Your task to perform on an android device: manage bookmarks in the chrome app Image 0: 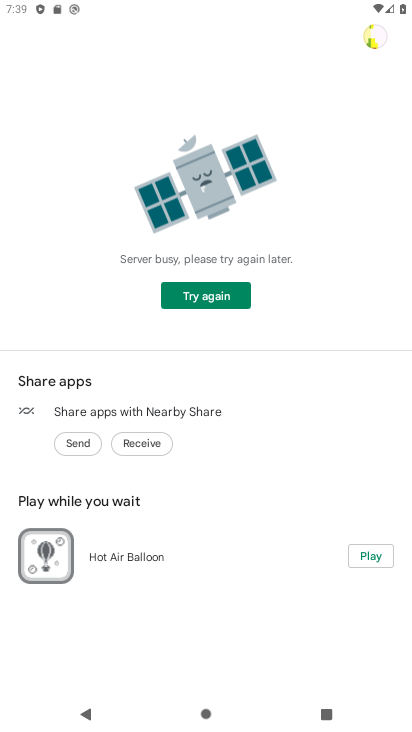
Step 0: press home button
Your task to perform on an android device: manage bookmarks in the chrome app Image 1: 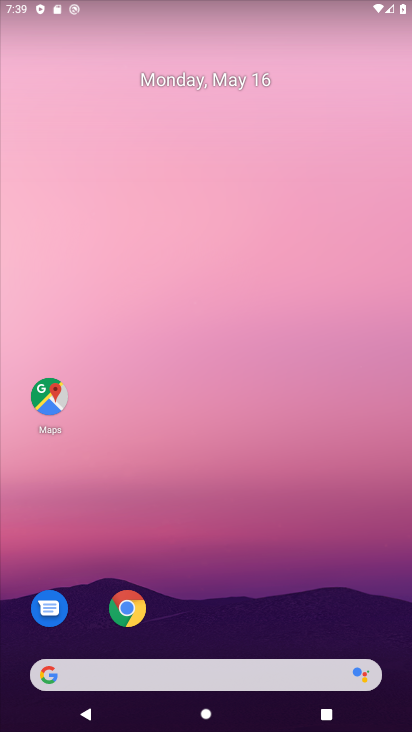
Step 1: click (133, 608)
Your task to perform on an android device: manage bookmarks in the chrome app Image 2: 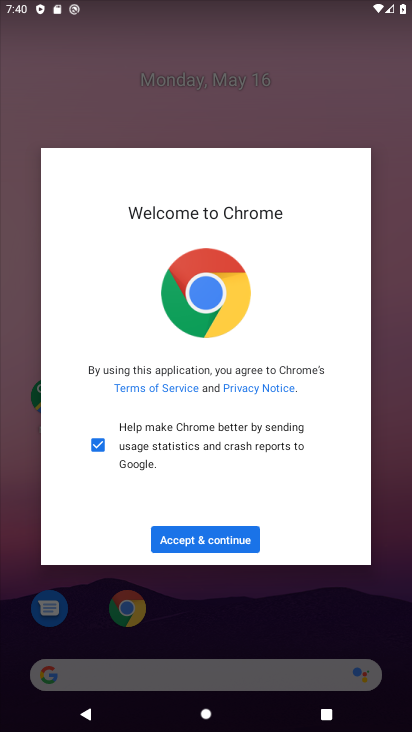
Step 2: click (154, 542)
Your task to perform on an android device: manage bookmarks in the chrome app Image 3: 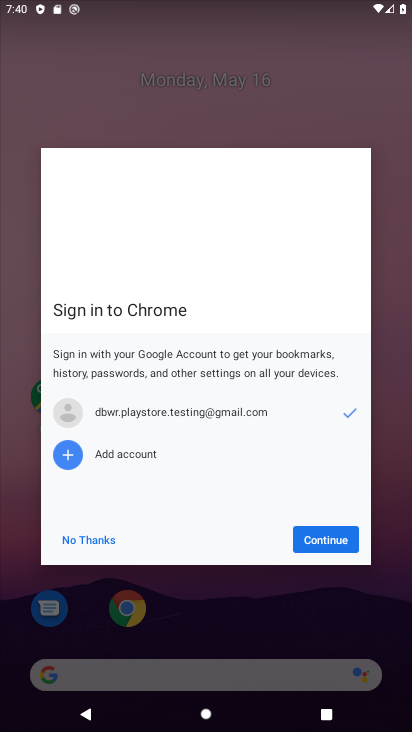
Step 3: click (102, 540)
Your task to perform on an android device: manage bookmarks in the chrome app Image 4: 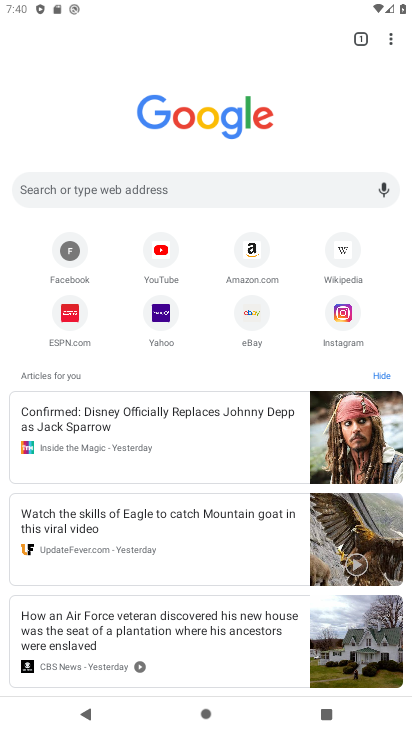
Step 4: click (393, 38)
Your task to perform on an android device: manage bookmarks in the chrome app Image 5: 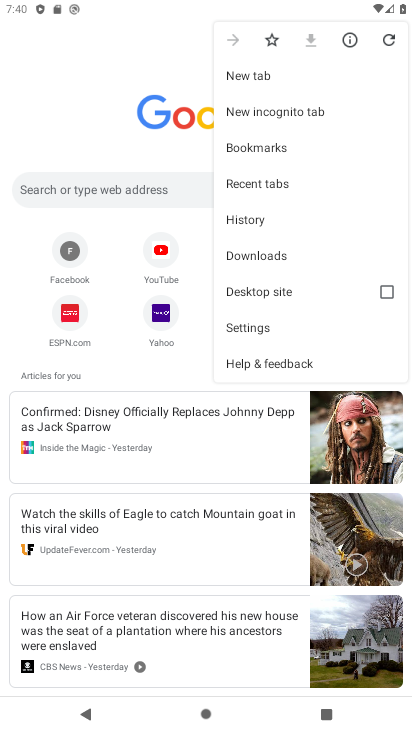
Step 5: click (272, 147)
Your task to perform on an android device: manage bookmarks in the chrome app Image 6: 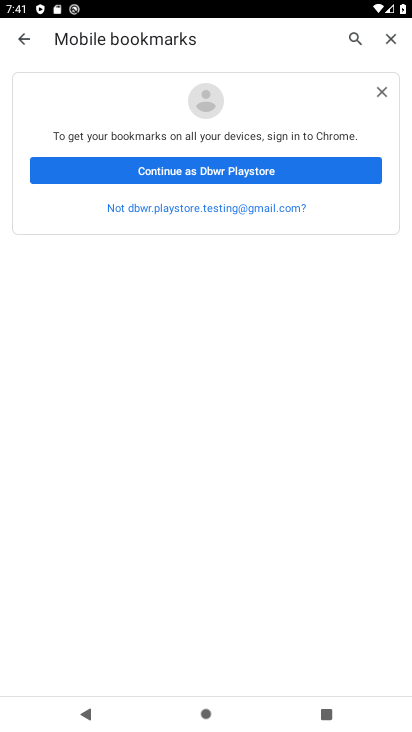
Step 6: click (212, 169)
Your task to perform on an android device: manage bookmarks in the chrome app Image 7: 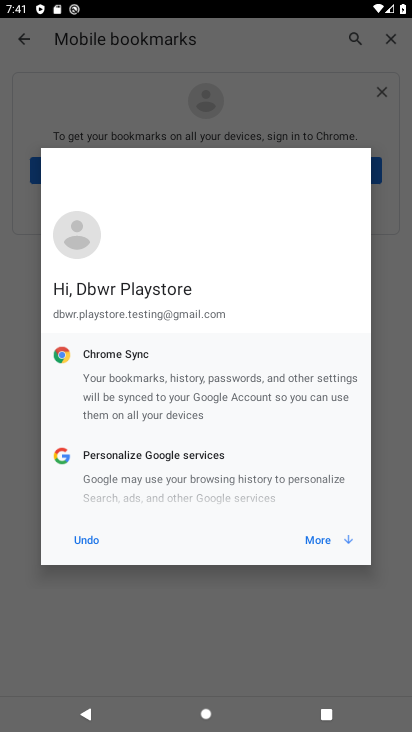
Step 7: click (76, 550)
Your task to perform on an android device: manage bookmarks in the chrome app Image 8: 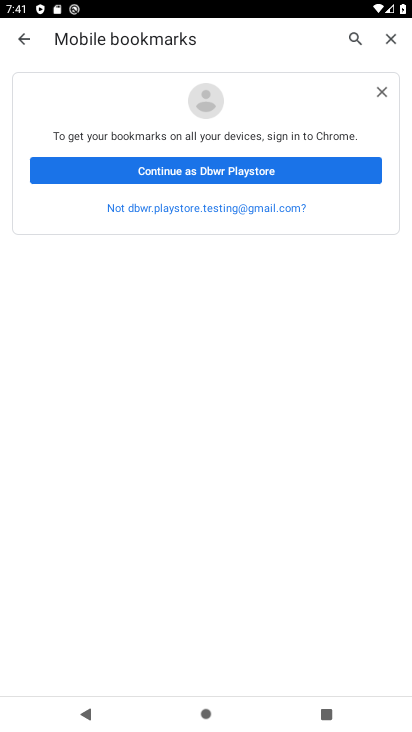
Step 8: click (388, 90)
Your task to perform on an android device: manage bookmarks in the chrome app Image 9: 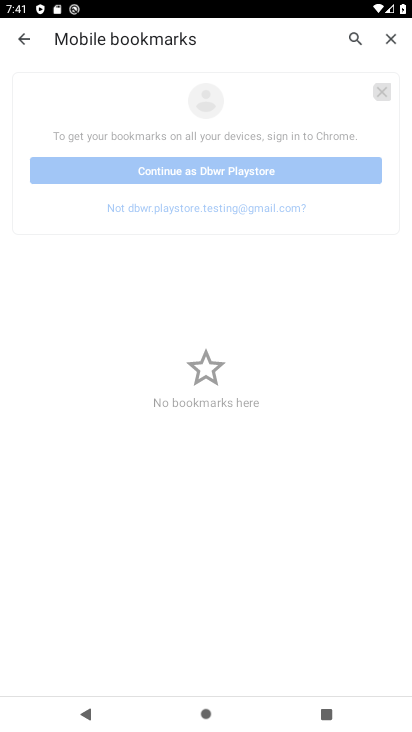
Step 9: click (378, 100)
Your task to perform on an android device: manage bookmarks in the chrome app Image 10: 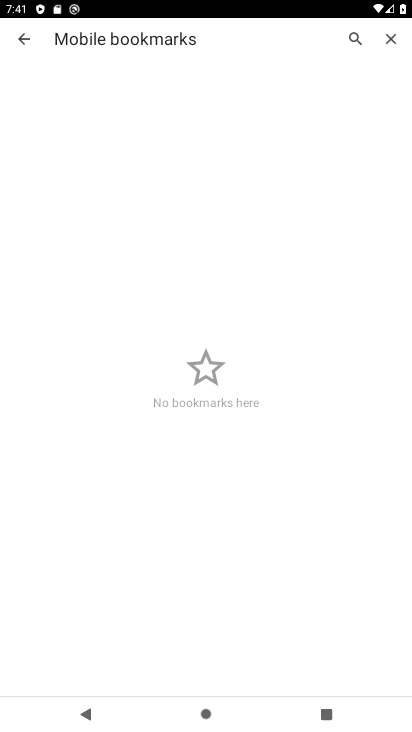
Step 10: task complete